Your task to perform on an android device: change the clock display to show seconds Image 0: 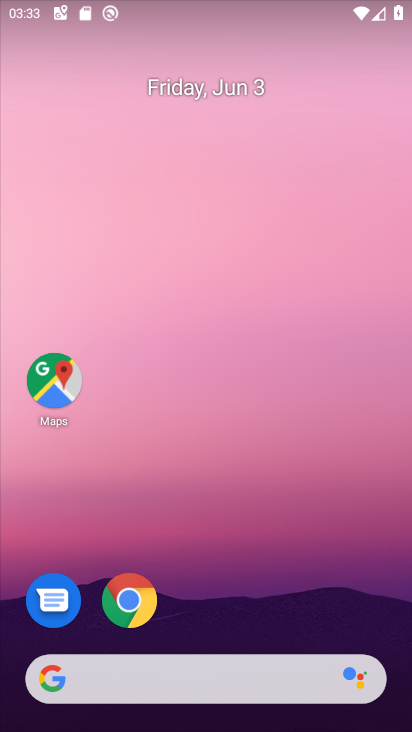
Step 0: drag from (247, 564) to (322, 92)
Your task to perform on an android device: change the clock display to show seconds Image 1: 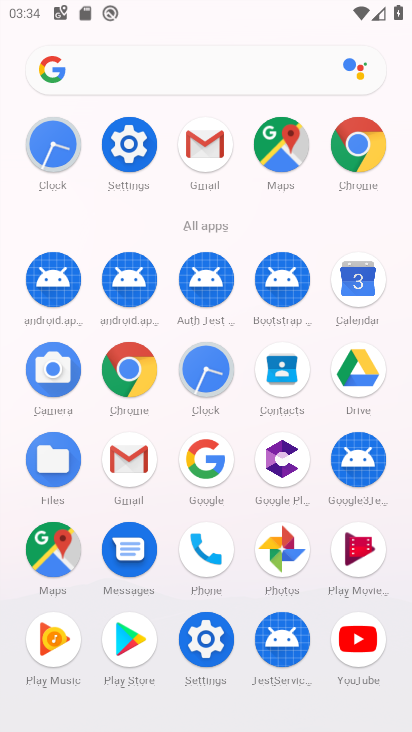
Step 1: click (210, 368)
Your task to perform on an android device: change the clock display to show seconds Image 2: 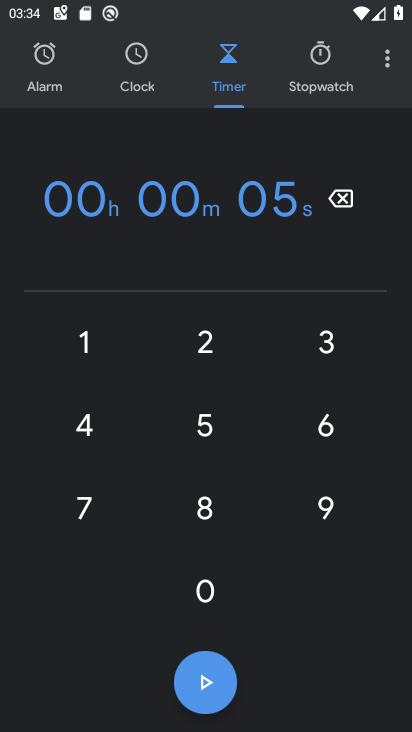
Step 2: drag from (389, 52) to (274, 127)
Your task to perform on an android device: change the clock display to show seconds Image 3: 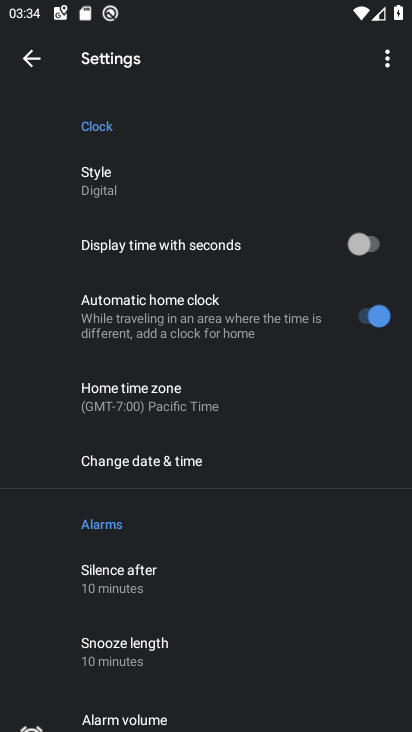
Step 3: click (339, 257)
Your task to perform on an android device: change the clock display to show seconds Image 4: 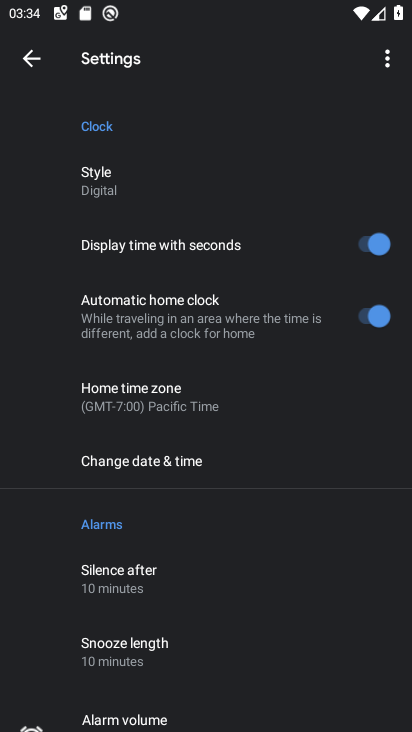
Step 4: task complete